Your task to perform on an android device: move a message to another label in the gmail app Image 0: 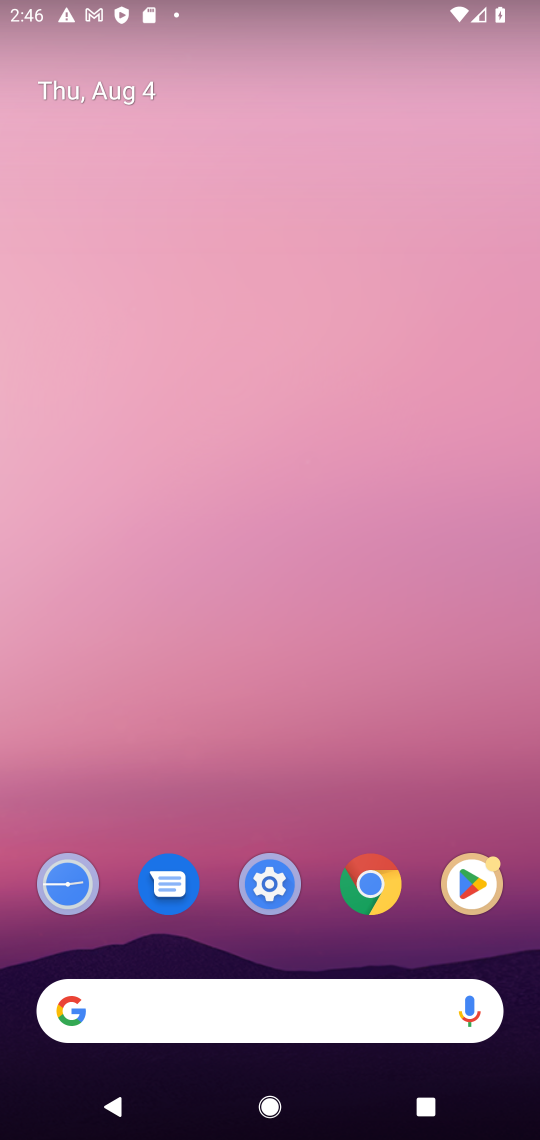
Step 0: drag from (314, 727) to (362, 114)
Your task to perform on an android device: move a message to another label in the gmail app Image 1: 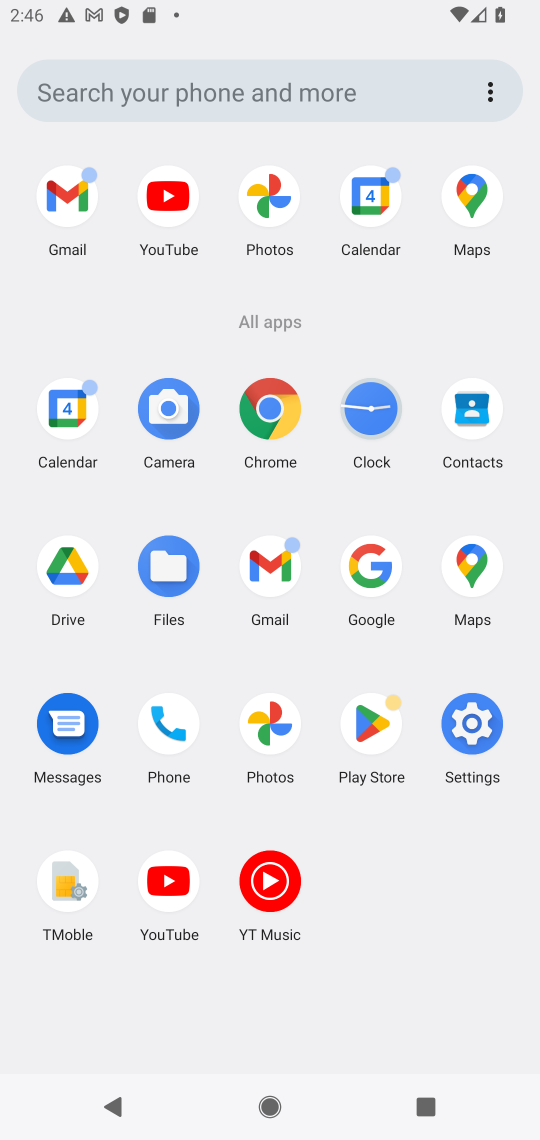
Step 1: click (276, 554)
Your task to perform on an android device: move a message to another label in the gmail app Image 2: 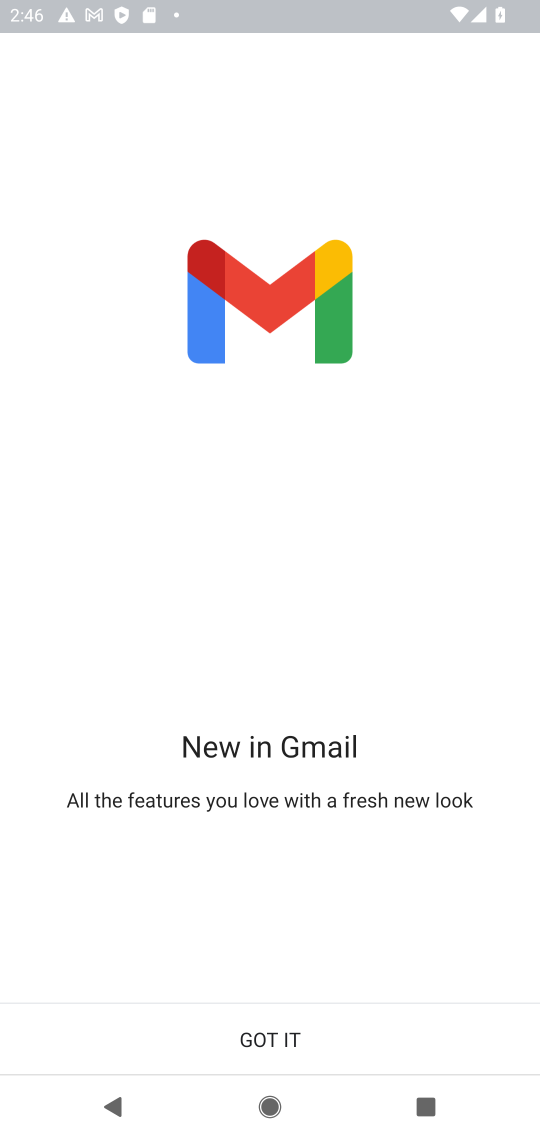
Step 2: click (312, 1036)
Your task to perform on an android device: move a message to another label in the gmail app Image 3: 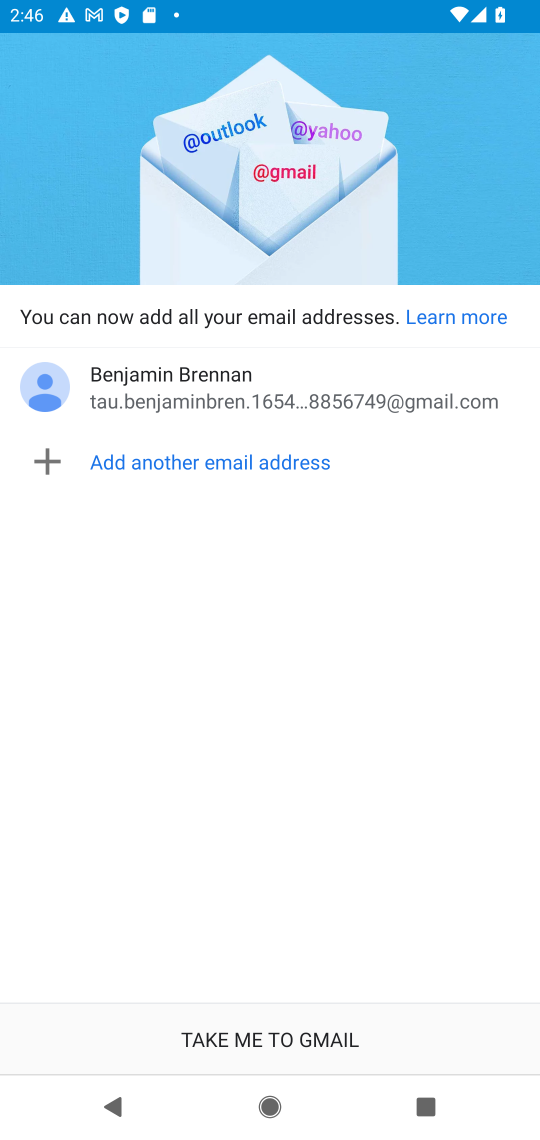
Step 3: click (312, 1036)
Your task to perform on an android device: move a message to another label in the gmail app Image 4: 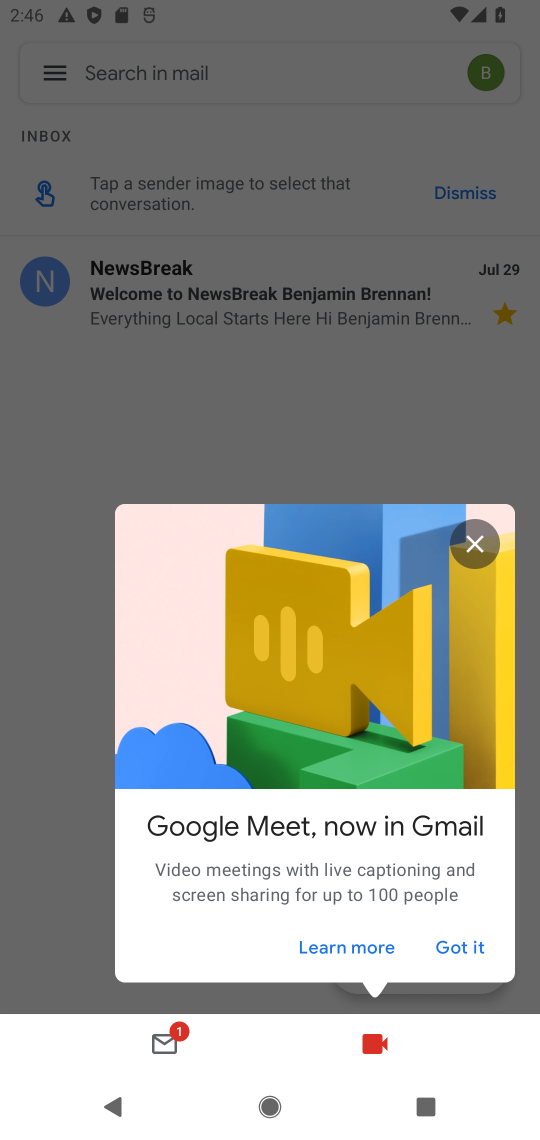
Step 4: click (480, 539)
Your task to perform on an android device: move a message to another label in the gmail app Image 5: 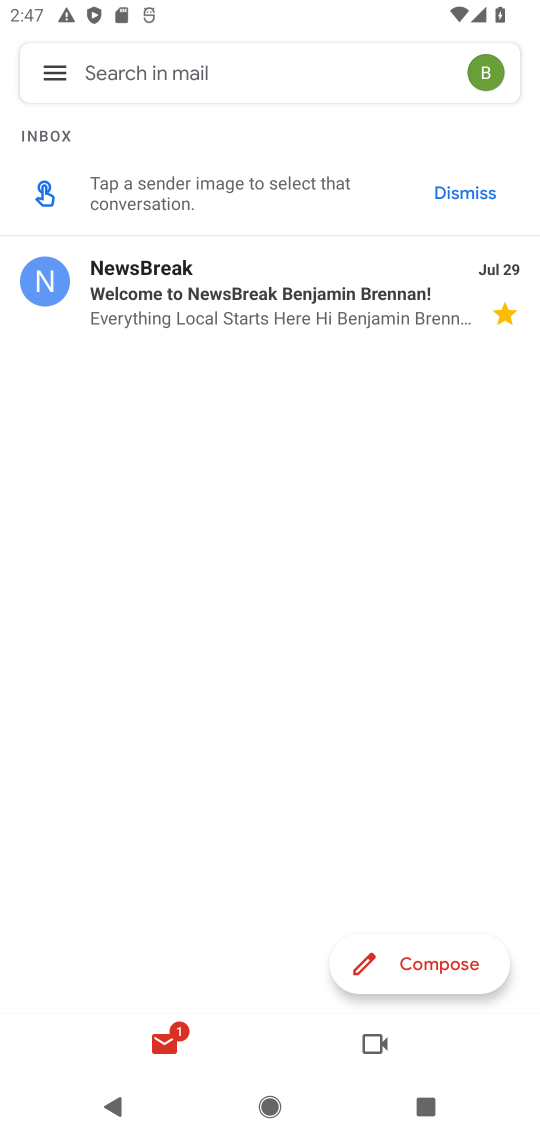
Step 5: click (286, 303)
Your task to perform on an android device: move a message to another label in the gmail app Image 6: 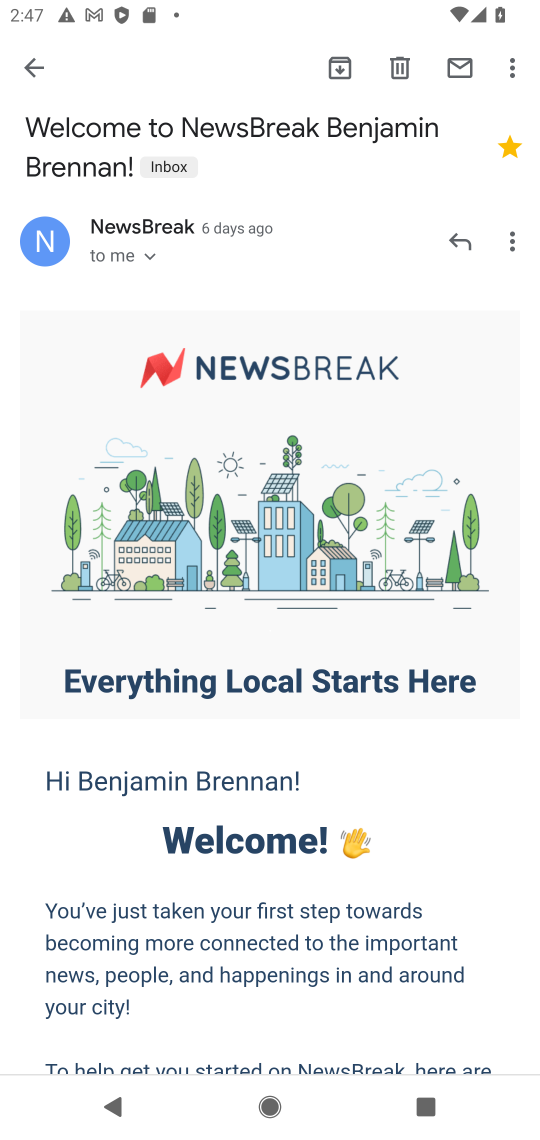
Step 6: click (515, 67)
Your task to perform on an android device: move a message to another label in the gmail app Image 7: 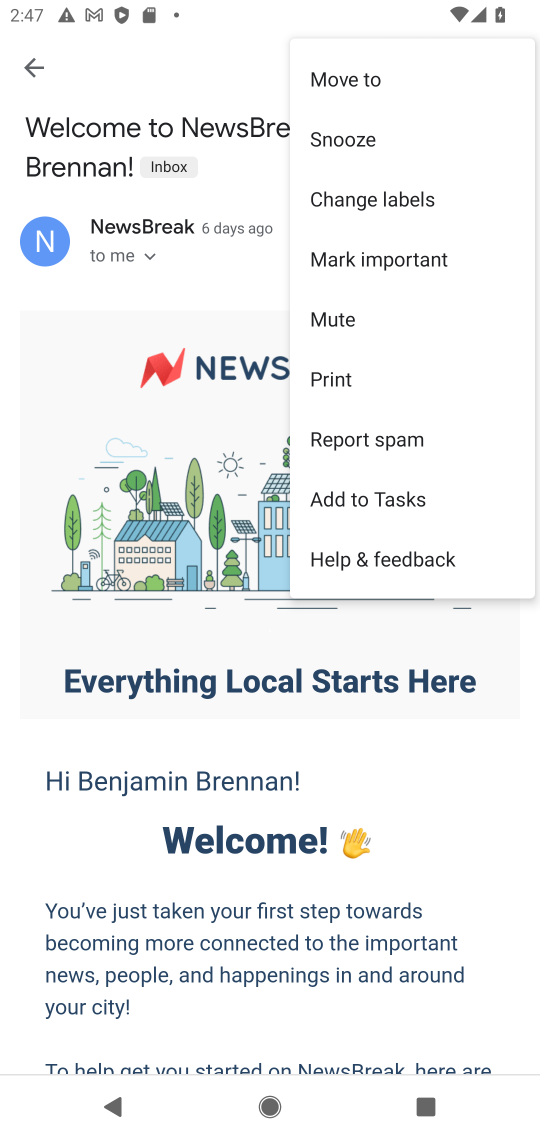
Step 7: click (365, 79)
Your task to perform on an android device: move a message to another label in the gmail app Image 8: 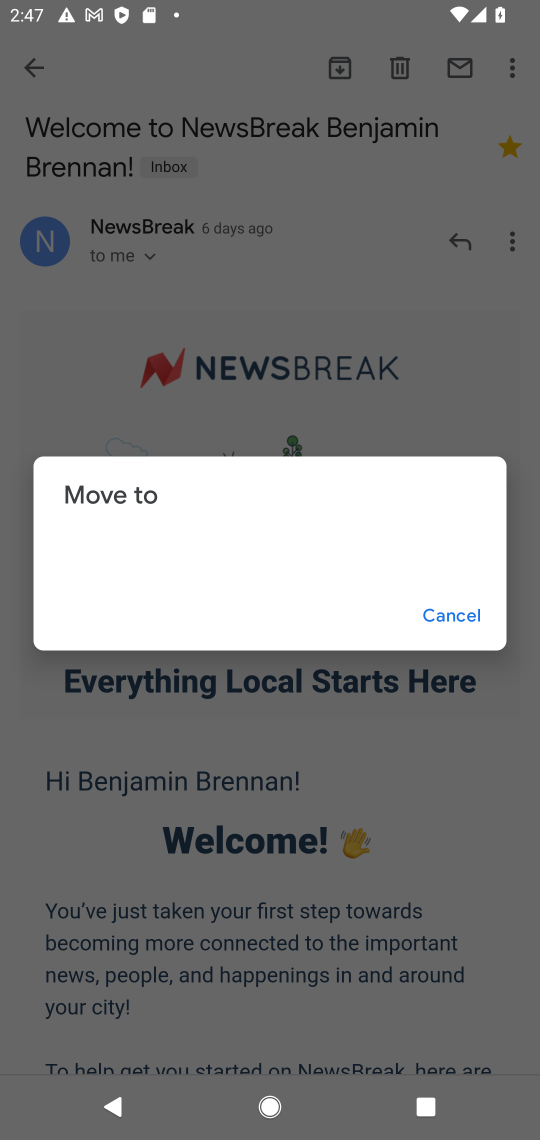
Step 8: task complete